Your task to perform on an android device: Open Google Maps and go to "Timeline" Image 0: 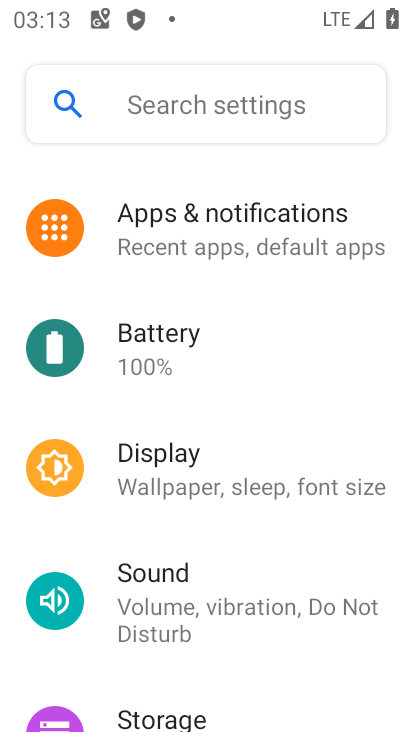
Step 0: press home button
Your task to perform on an android device: Open Google Maps and go to "Timeline" Image 1: 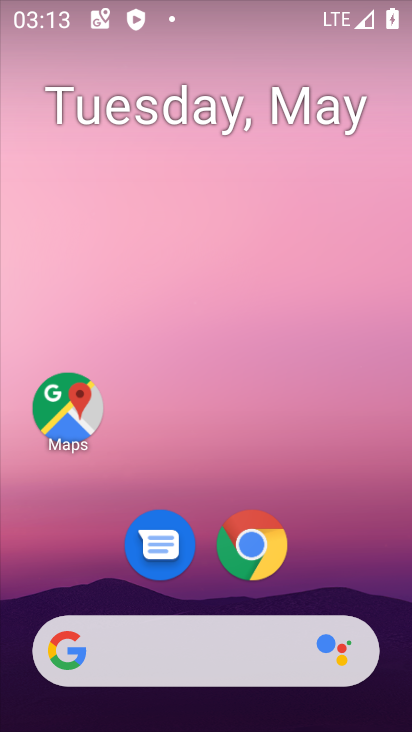
Step 1: click (66, 408)
Your task to perform on an android device: Open Google Maps and go to "Timeline" Image 2: 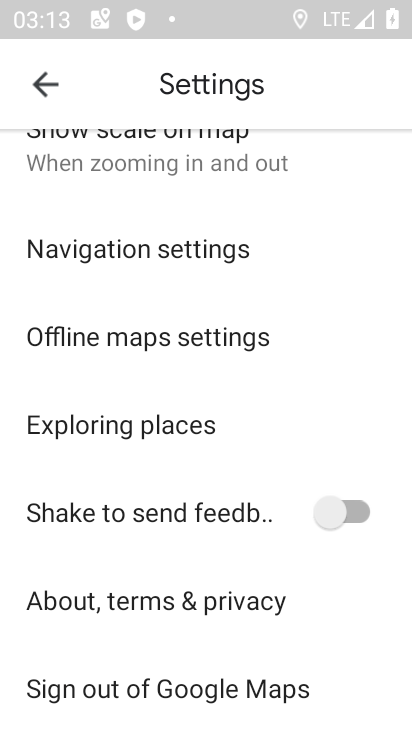
Step 2: press back button
Your task to perform on an android device: Open Google Maps and go to "Timeline" Image 3: 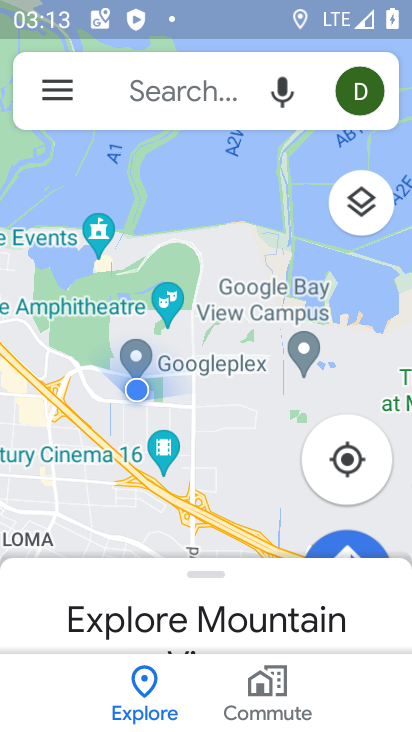
Step 3: click (56, 85)
Your task to perform on an android device: Open Google Maps and go to "Timeline" Image 4: 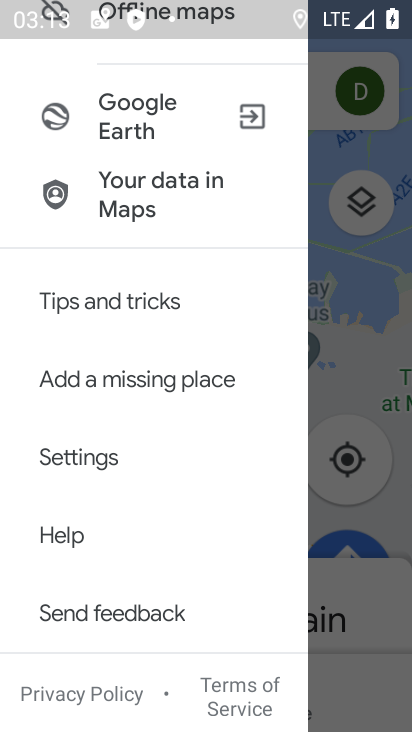
Step 4: drag from (186, 238) to (170, 526)
Your task to perform on an android device: Open Google Maps and go to "Timeline" Image 5: 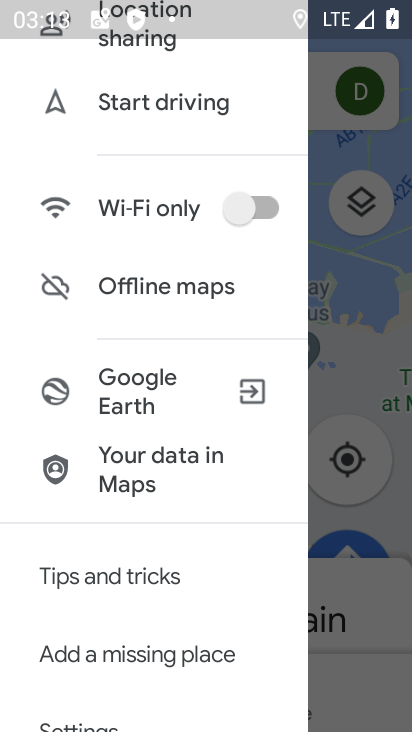
Step 5: drag from (208, 183) to (201, 528)
Your task to perform on an android device: Open Google Maps and go to "Timeline" Image 6: 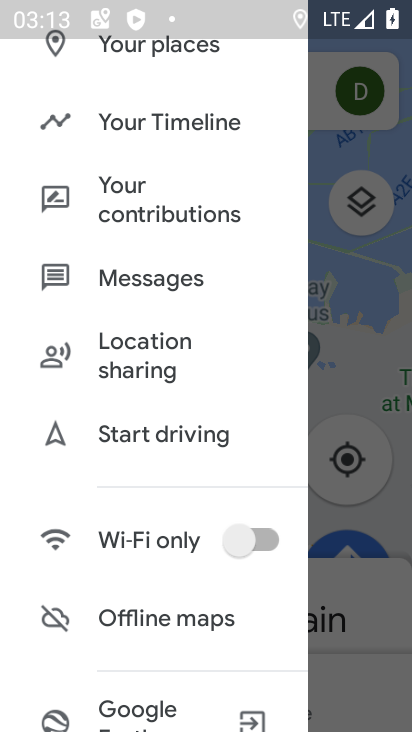
Step 6: drag from (219, 171) to (192, 489)
Your task to perform on an android device: Open Google Maps and go to "Timeline" Image 7: 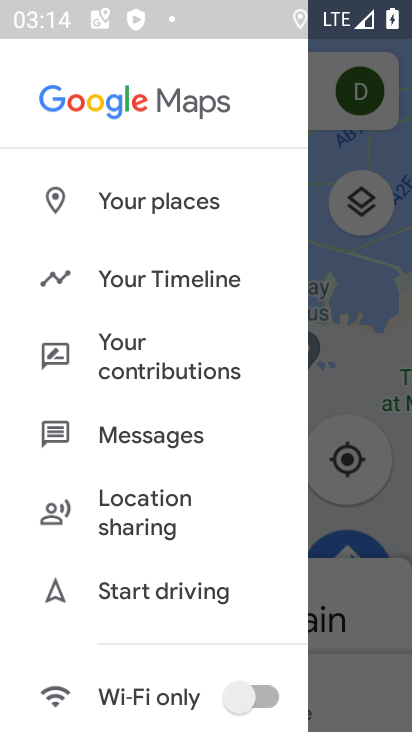
Step 7: click (162, 270)
Your task to perform on an android device: Open Google Maps and go to "Timeline" Image 8: 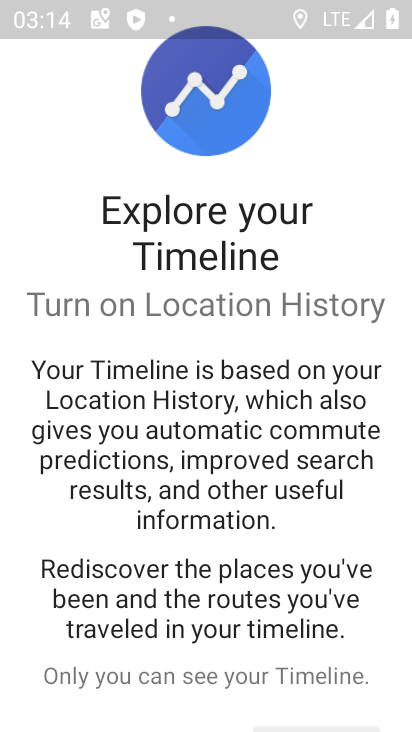
Step 8: drag from (282, 617) to (265, 176)
Your task to perform on an android device: Open Google Maps and go to "Timeline" Image 9: 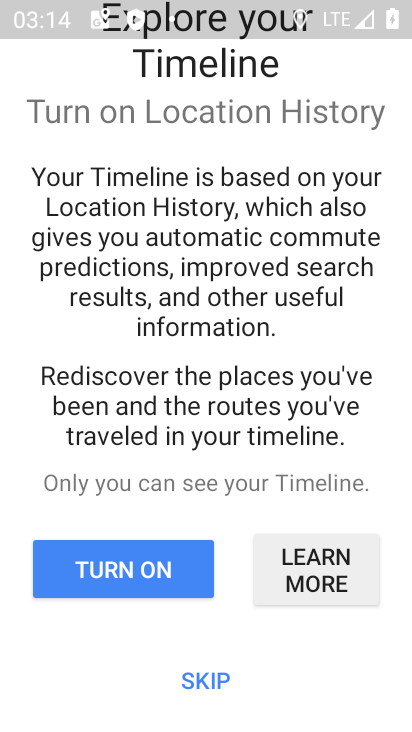
Step 9: click (205, 683)
Your task to perform on an android device: Open Google Maps and go to "Timeline" Image 10: 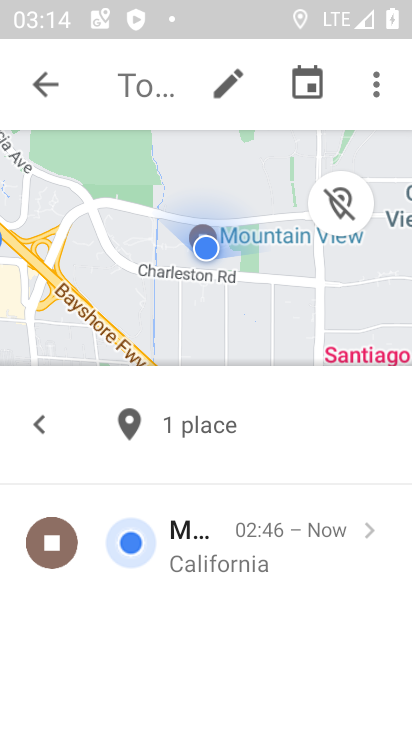
Step 10: task complete